Your task to perform on an android device: Go to Wikipedia Image 0: 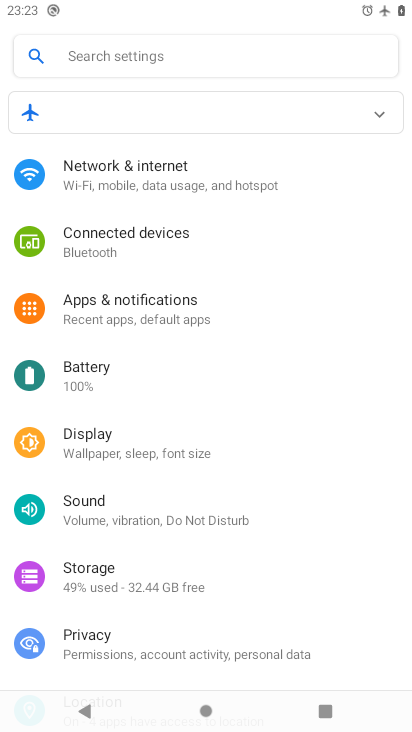
Step 0: press home button
Your task to perform on an android device: Go to Wikipedia Image 1: 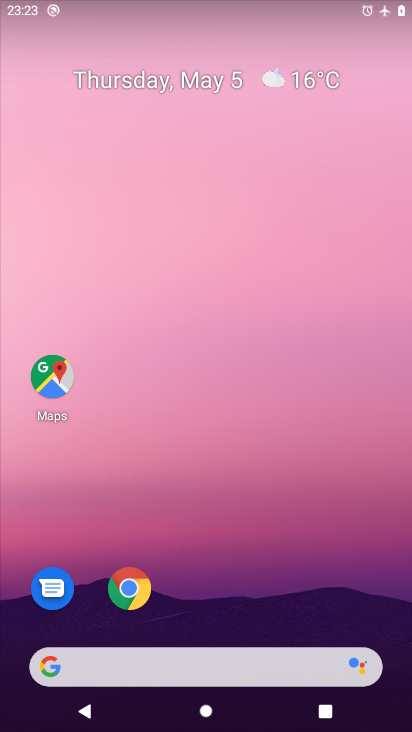
Step 1: click (139, 586)
Your task to perform on an android device: Go to Wikipedia Image 2: 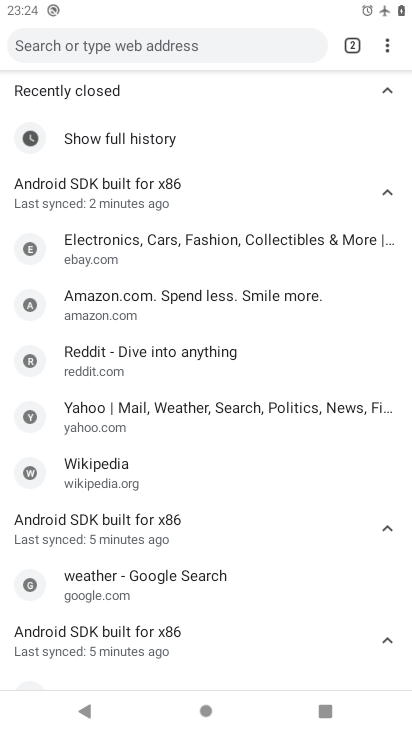
Step 2: click (349, 55)
Your task to perform on an android device: Go to Wikipedia Image 3: 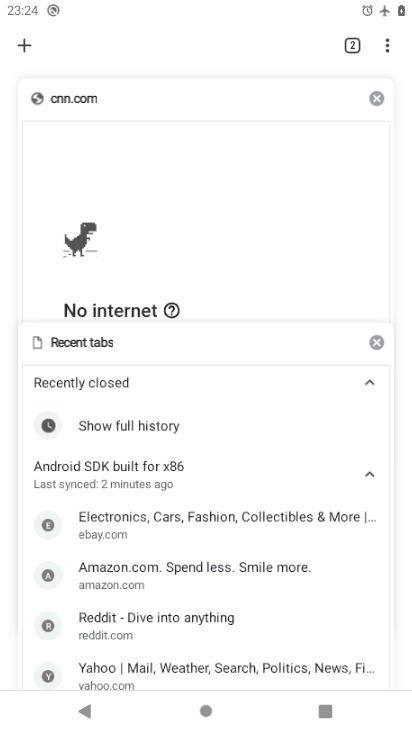
Step 3: click (21, 56)
Your task to perform on an android device: Go to Wikipedia Image 4: 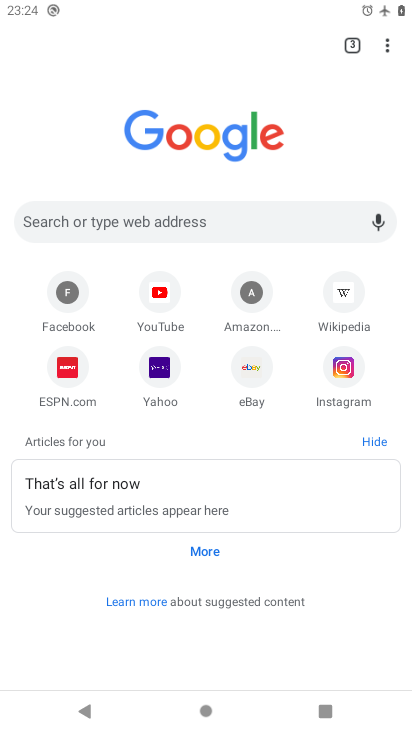
Step 4: click (350, 289)
Your task to perform on an android device: Go to Wikipedia Image 5: 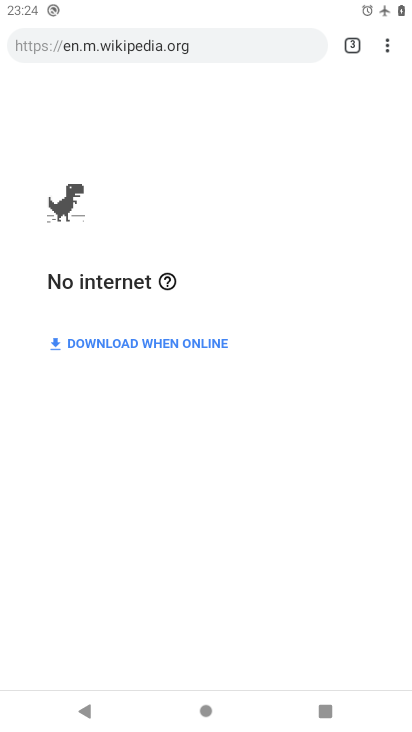
Step 5: task complete